Your task to perform on an android device: toggle wifi Image 0: 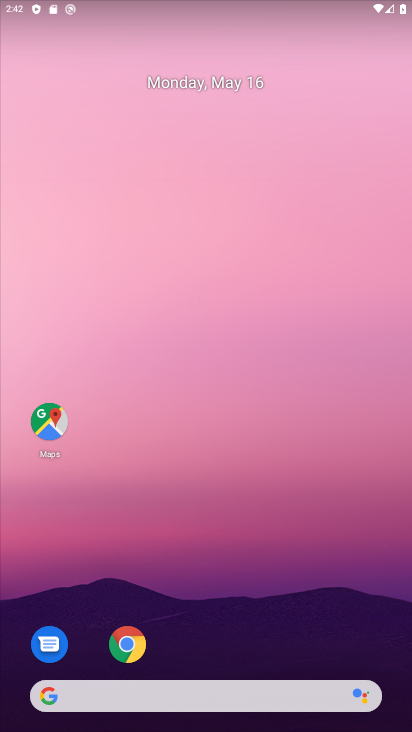
Step 0: drag from (205, 682) to (293, 70)
Your task to perform on an android device: toggle wifi Image 1: 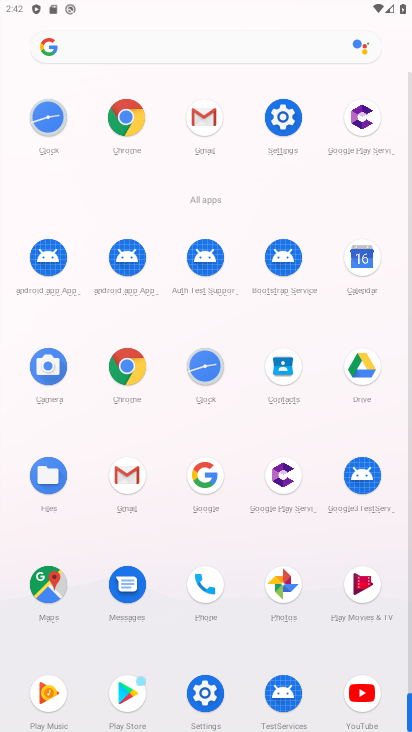
Step 1: drag from (265, 586) to (313, 387)
Your task to perform on an android device: toggle wifi Image 2: 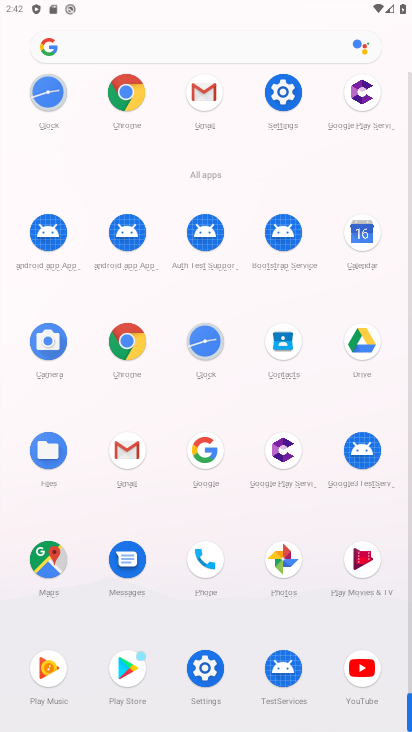
Step 2: click (213, 681)
Your task to perform on an android device: toggle wifi Image 3: 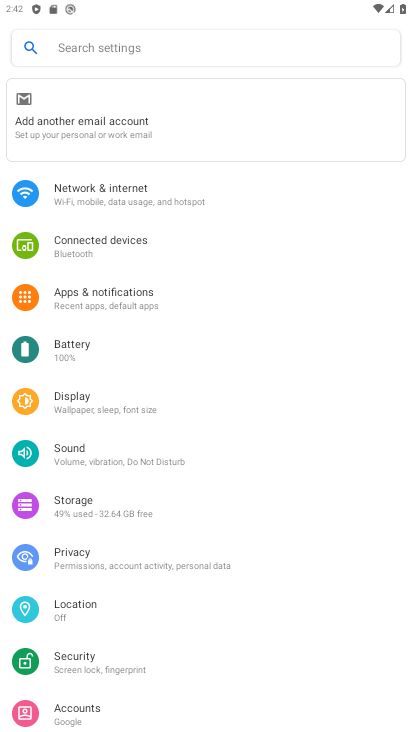
Step 3: click (150, 203)
Your task to perform on an android device: toggle wifi Image 4: 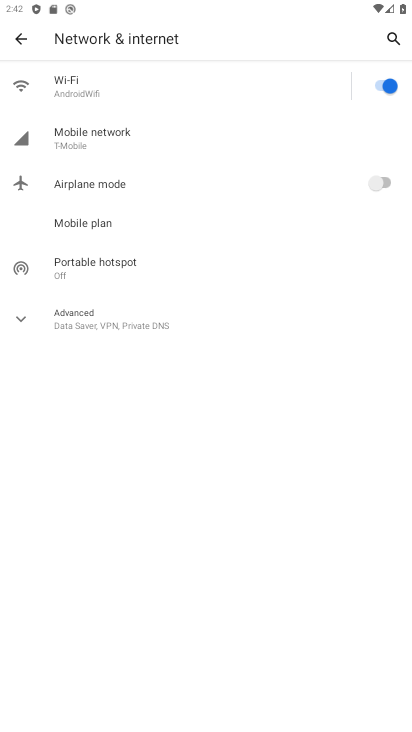
Step 4: click (382, 88)
Your task to perform on an android device: toggle wifi Image 5: 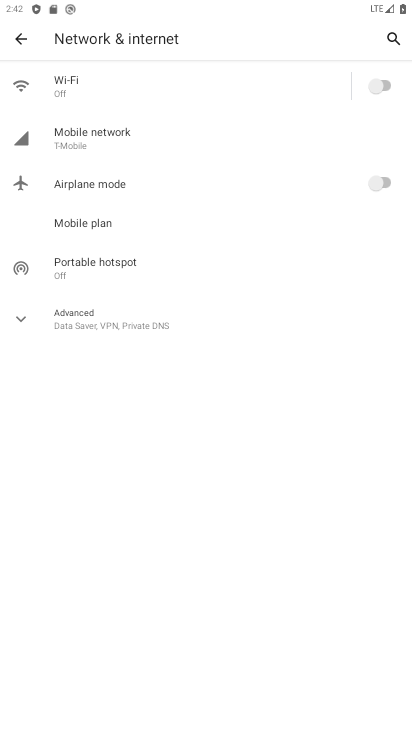
Step 5: task complete